Your task to perform on an android device: change timer sound Image 0: 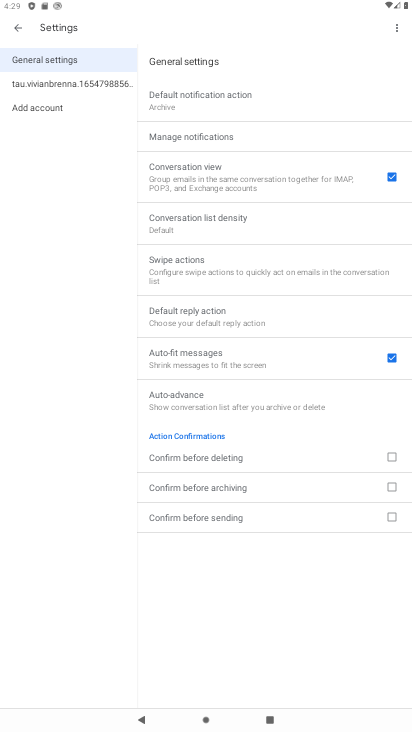
Step 0: drag from (202, 663) to (252, 17)
Your task to perform on an android device: change timer sound Image 1: 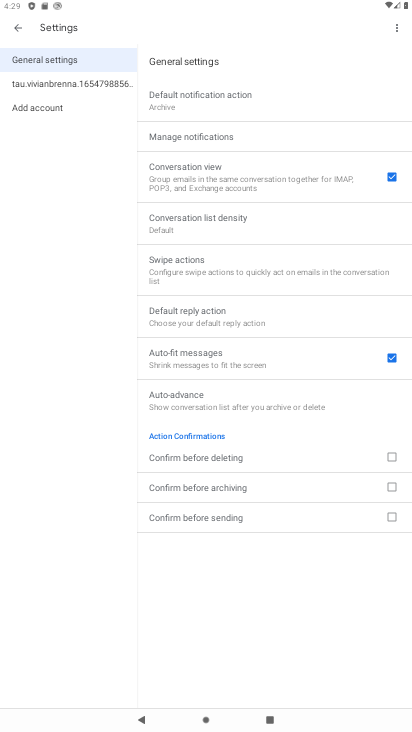
Step 1: press home button
Your task to perform on an android device: change timer sound Image 2: 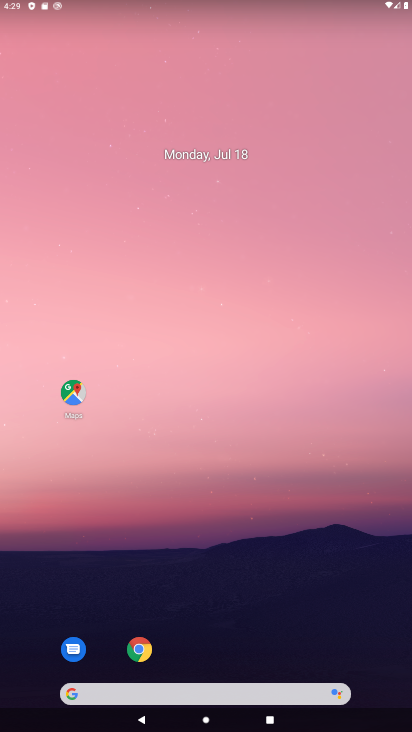
Step 2: drag from (194, 601) to (74, 0)
Your task to perform on an android device: change timer sound Image 3: 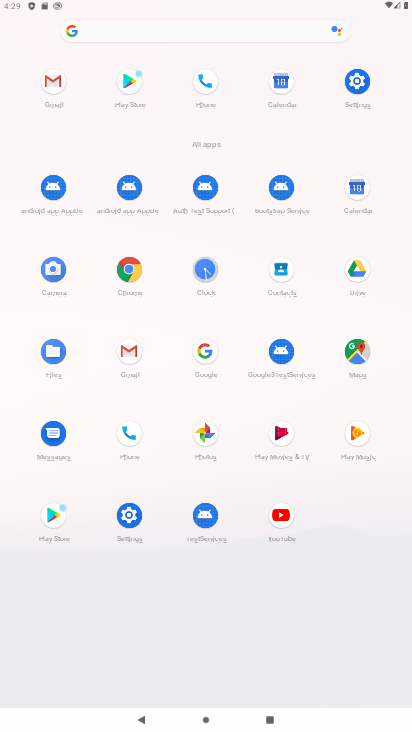
Step 3: click (211, 274)
Your task to perform on an android device: change timer sound Image 4: 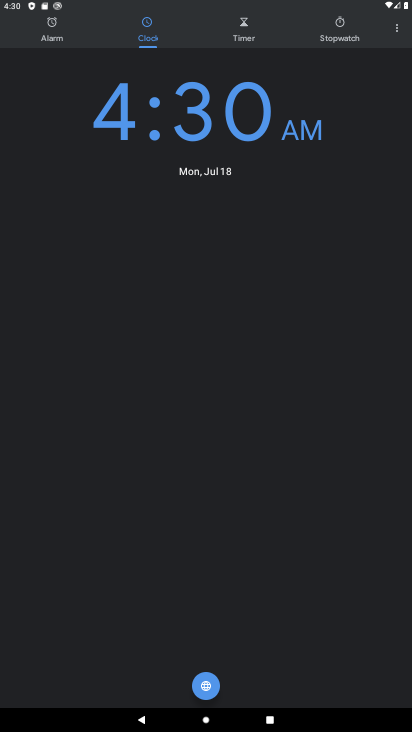
Step 4: click (393, 32)
Your task to perform on an android device: change timer sound Image 5: 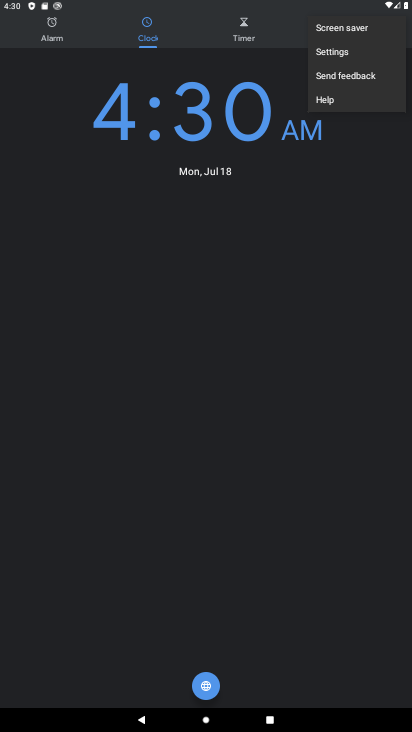
Step 5: click (328, 50)
Your task to perform on an android device: change timer sound Image 6: 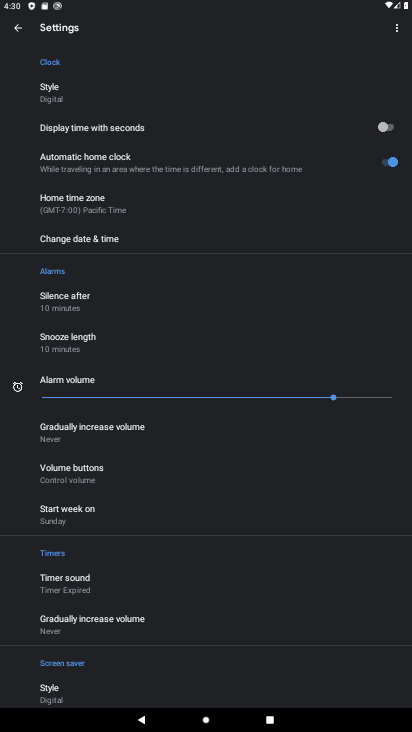
Step 6: click (84, 587)
Your task to perform on an android device: change timer sound Image 7: 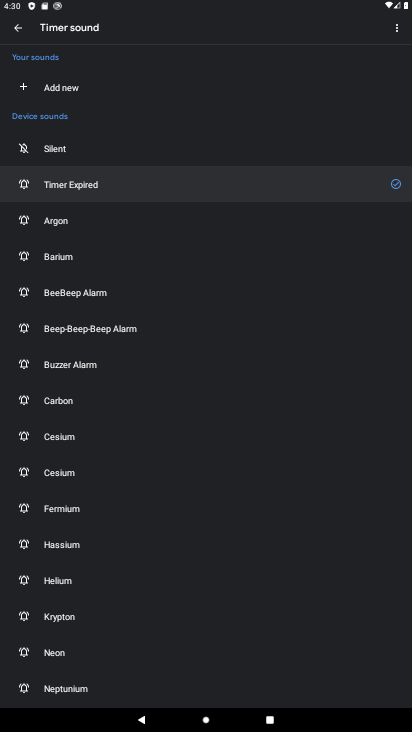
Step 7: click (68, 376)
Your task to perform on an android device: change timer sound Image 8: 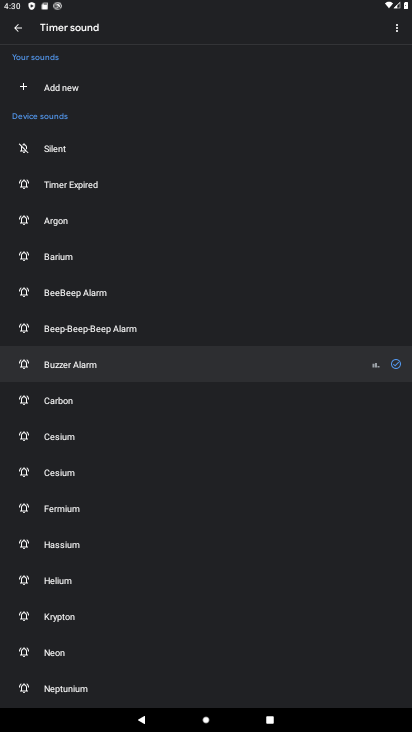
Step 8: task complete